Your task to perform on an android device: turn on showing notifications on the lock screen Image 0: 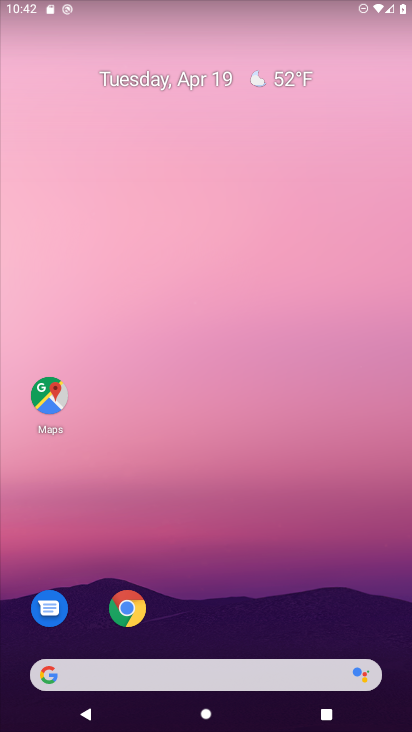
Step 0: drag from (282, 601) to (197, 66)
Your task to perform on an android device: turn on showing notifications on the lock screen Image 1: 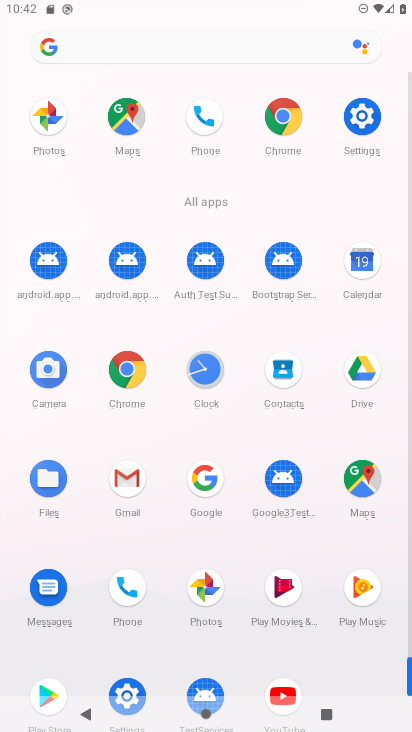
Step 1: click (353, 106)
Your task to perform on an android device: turn on showing notifications on the lock screen Image 2: 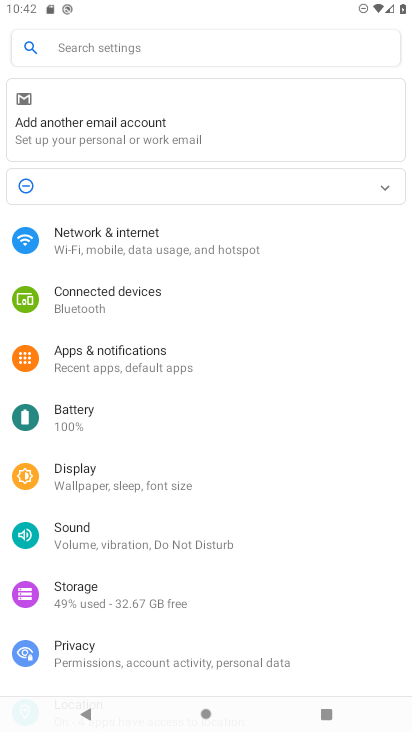
Step 2: click (185, 362)
Your task to perform on an android device: turn on showing notifications on the lock screen Image 3: 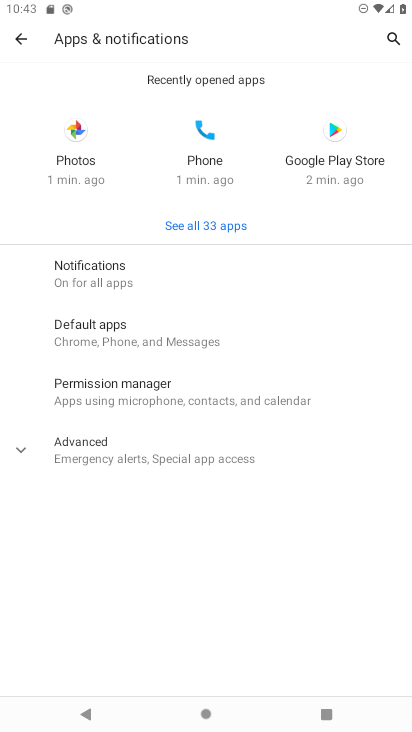
Step 3: click (75, 276)
Your task to perform on an android device: turn on showing notifications on the lock screen Image 4: 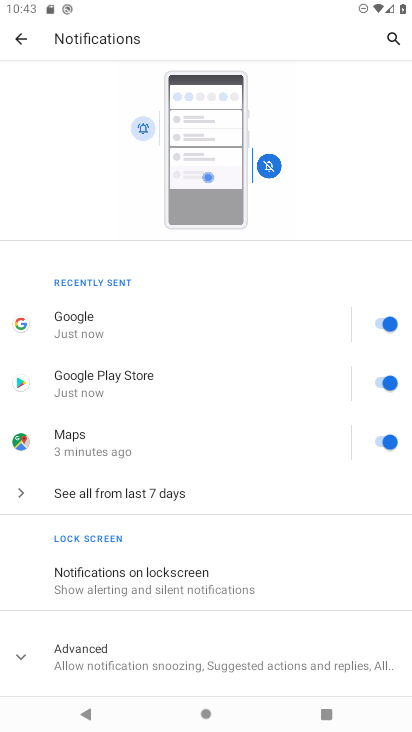
Step 4: drag from (207, 643) to (216, 306)
Your task to perform on an android device: turn on showing notifications on the lock screen Image 5: 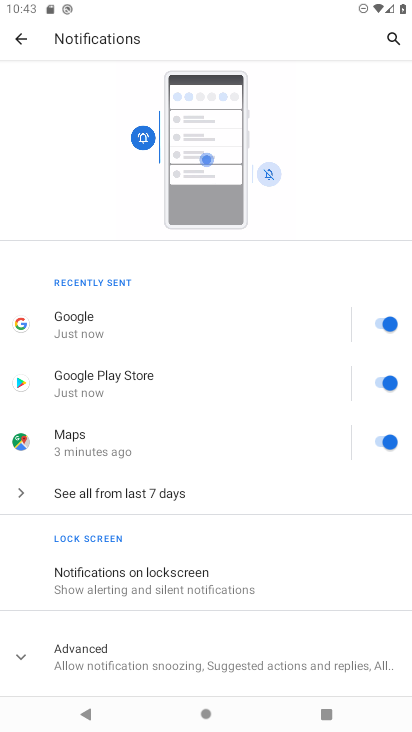
Step 5: click (147, 580)
Your task to perform on an android device: turn on showing notifications on the lock screen Image 6: 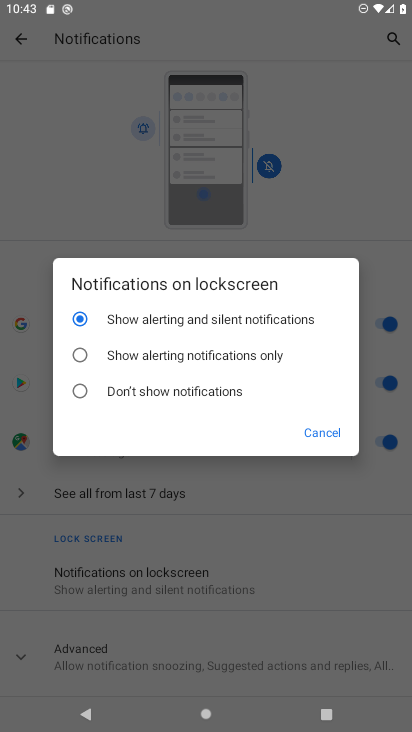
Step 6: click (83, 358)
Your task to perform on an android device: turn on showing notifications on the lock screen Image 7: 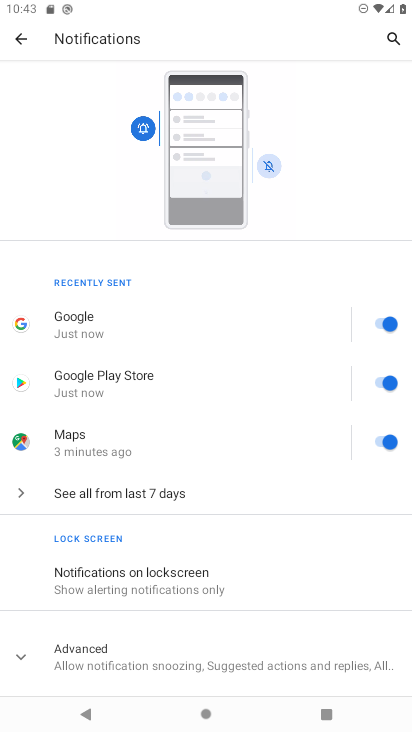
Step 7: task complete